Your task to perform on an android device: check battery use Image 0: 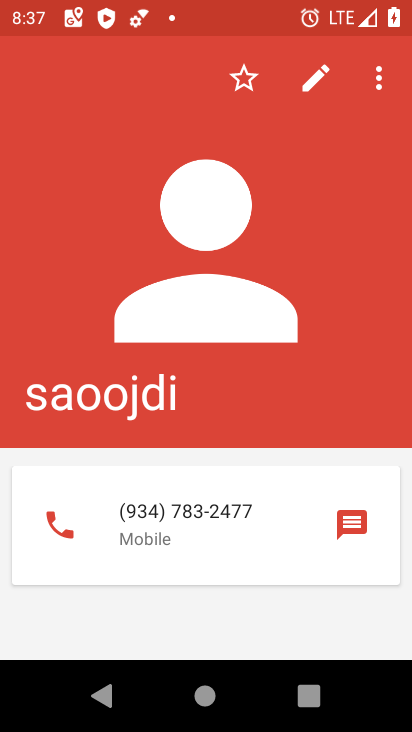
Step 0: press home button
Your task to perform on an android device: check battery use Image 1: 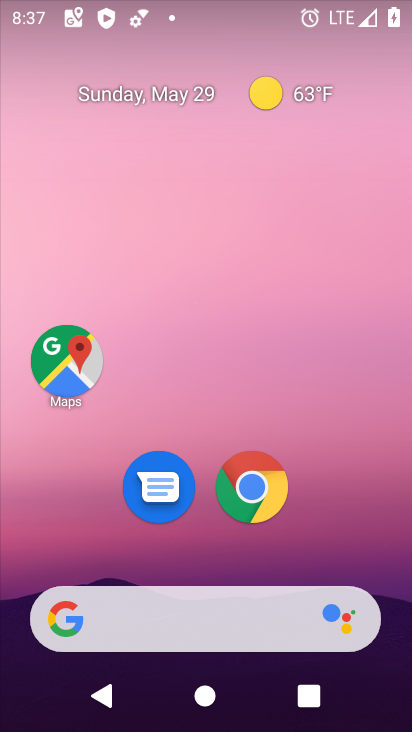
Step 1: drag from (194, 653) to (310, 203)
Your task to perform on an android device: check battery use Image 2: 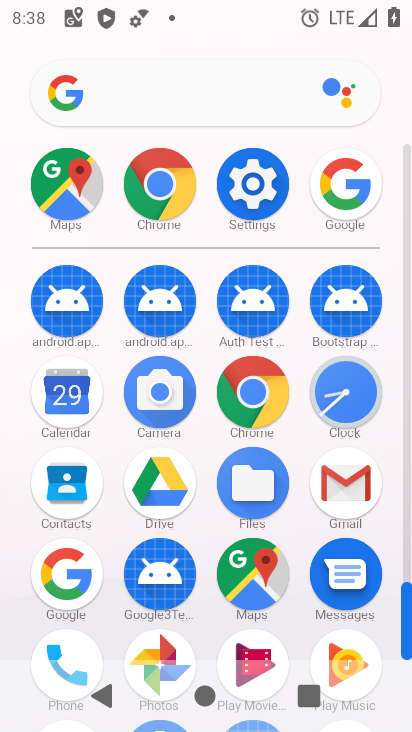
Step 2: click (252, 169)
Your task to perform on an android device: check battery use Image 3: 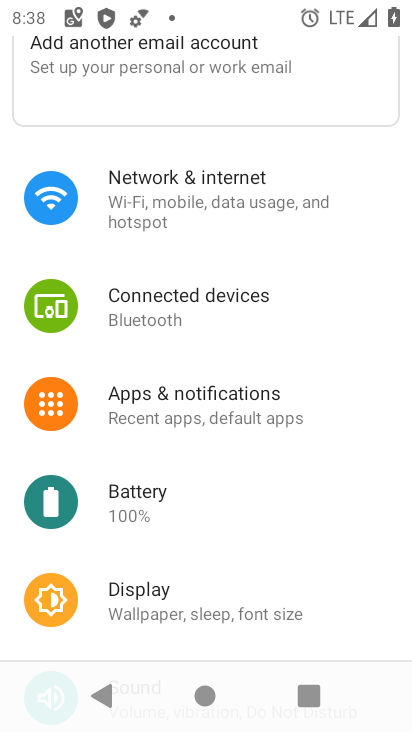
Step 3: click (213, 511)
Your task to perform on an android device: check battery use Image 4: 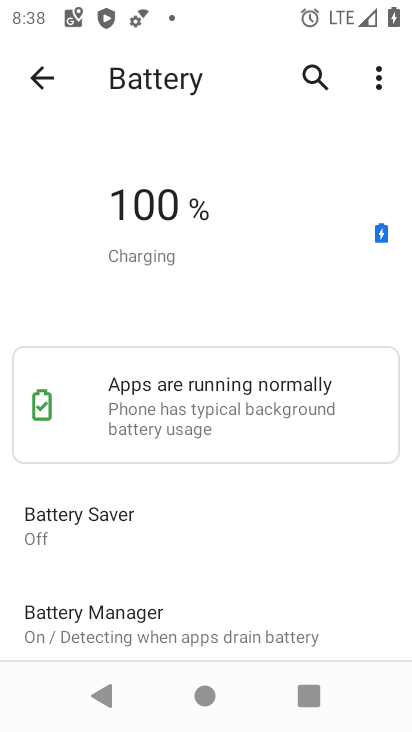
Step 4: task complete